Your task to perform on an android device: move an email to a new category in the gmail app Image 0: 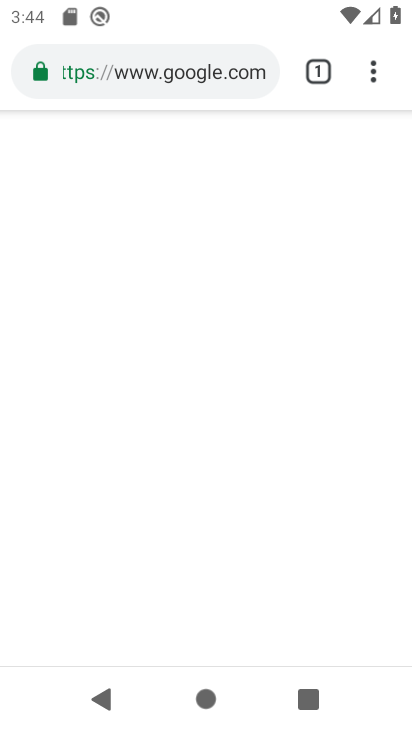
Step 0: press back button
Your task to perform on an android device: move an email to a new category in the gmail app Image 1: 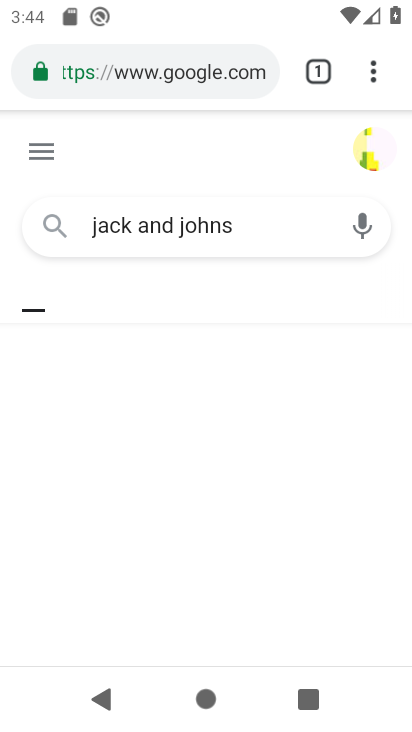
Step 1: press home button
Your task to perform on an android device: move an email to a new category in the gmail app Image 2: 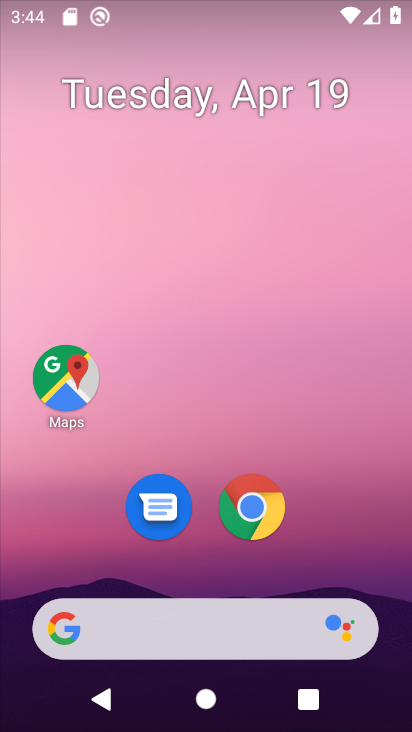
Step 2: drag from (332, 523) to (379, 131)
Your task to perform on an android device: move an email to a new category in the gmail app Image 3: 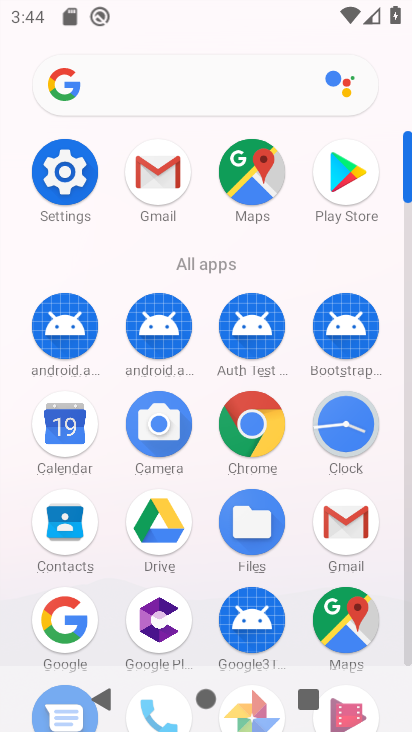
Step 3: click (354, 516)
Your task to perform on an android device: move an email to a new category in the gmail app Image 4: 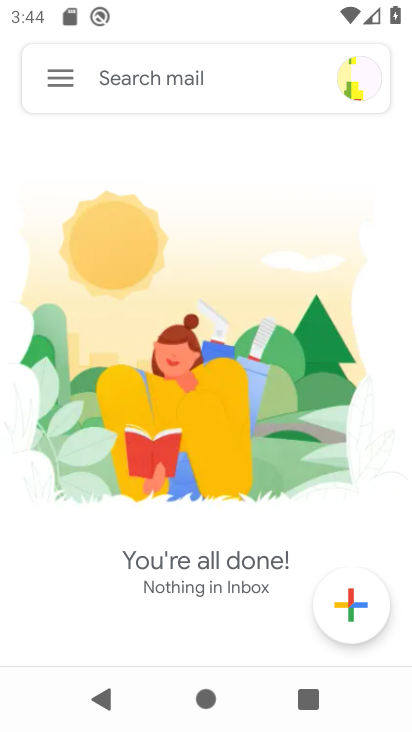
Step 4: task complete